Your task to perform on an android device: Empty the shopping cart on amazon. Add acer predator to the cart on amazon Image 0: 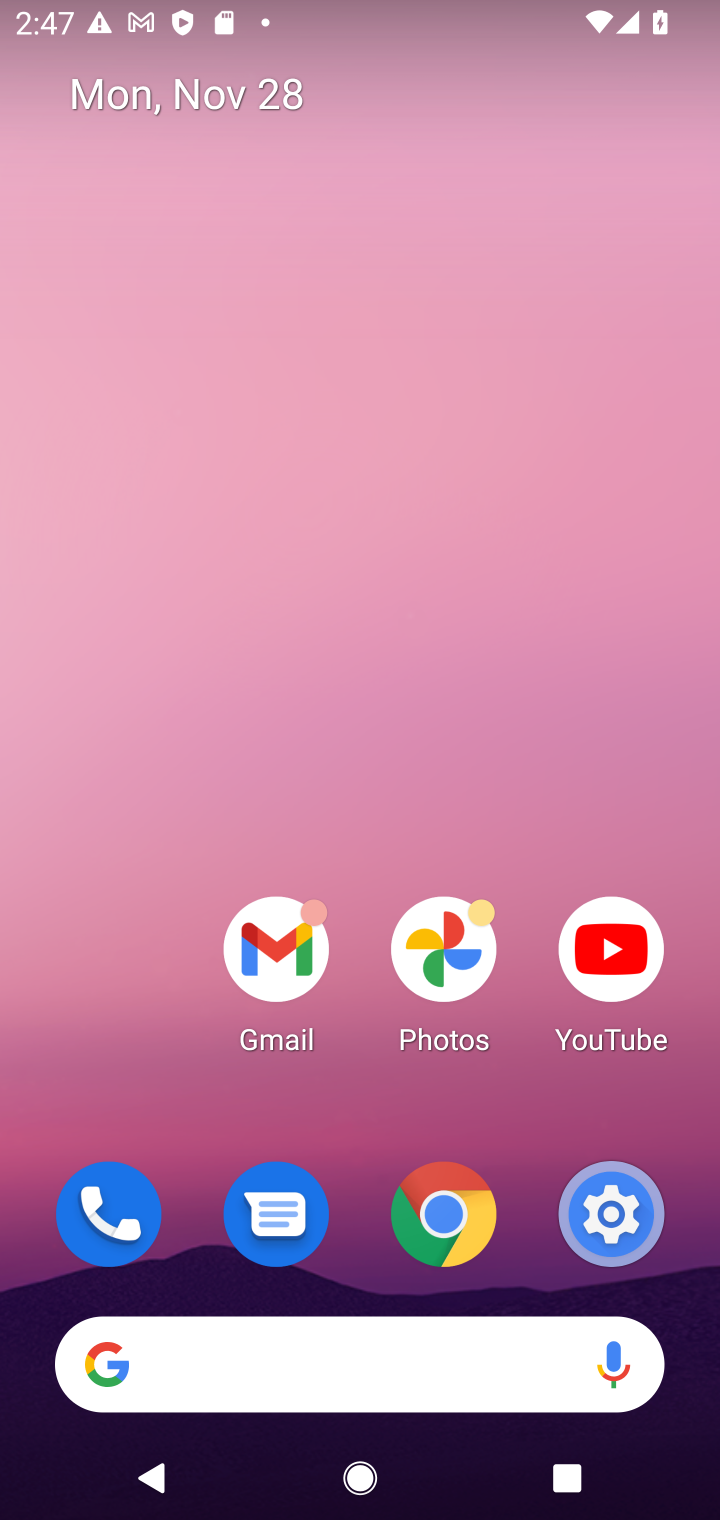
Step 0: click (373, 1334)
Your task to perform on an android device: Empty the shopping cart on amazon. Add acer predator to the cart on amazon Image 1: 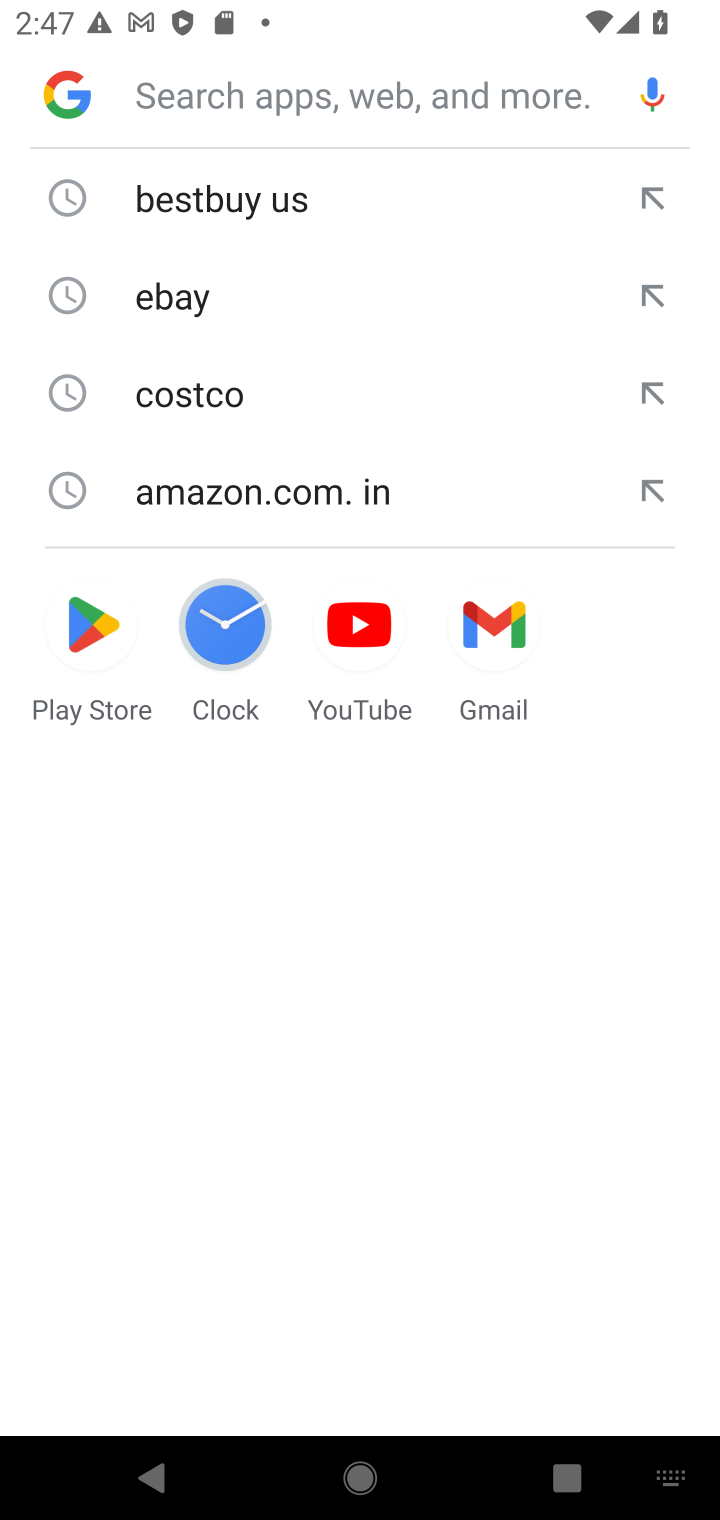
Step 1: type "amazon"
Your task to perform on an android device: Empty the shopping cart on amazon. Add acer predator to the cart on amazon Image 2: 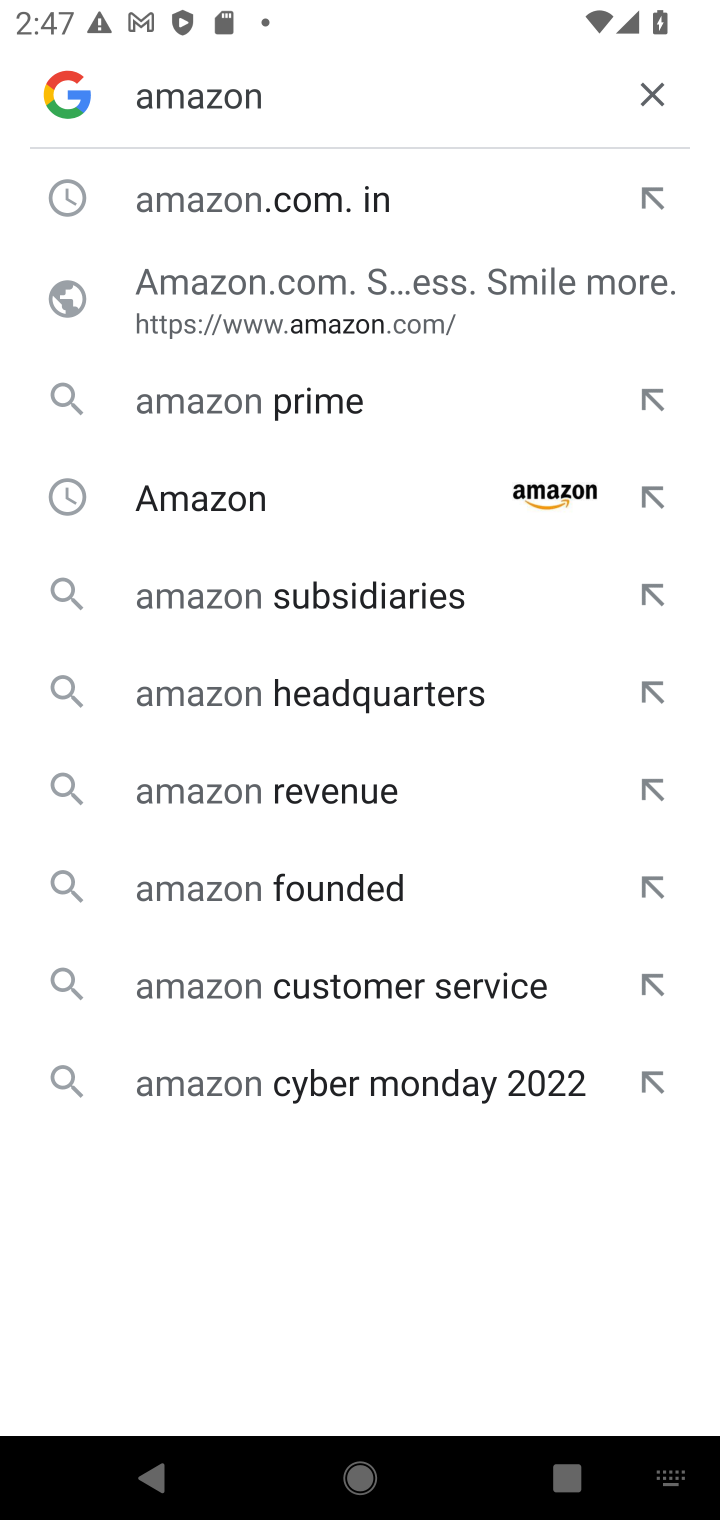
Step 2: click (224, 294)
Your task to perform on an android device: Empty the shopping cart on amazon. Add acer predator to the cart on amazon Image 3: 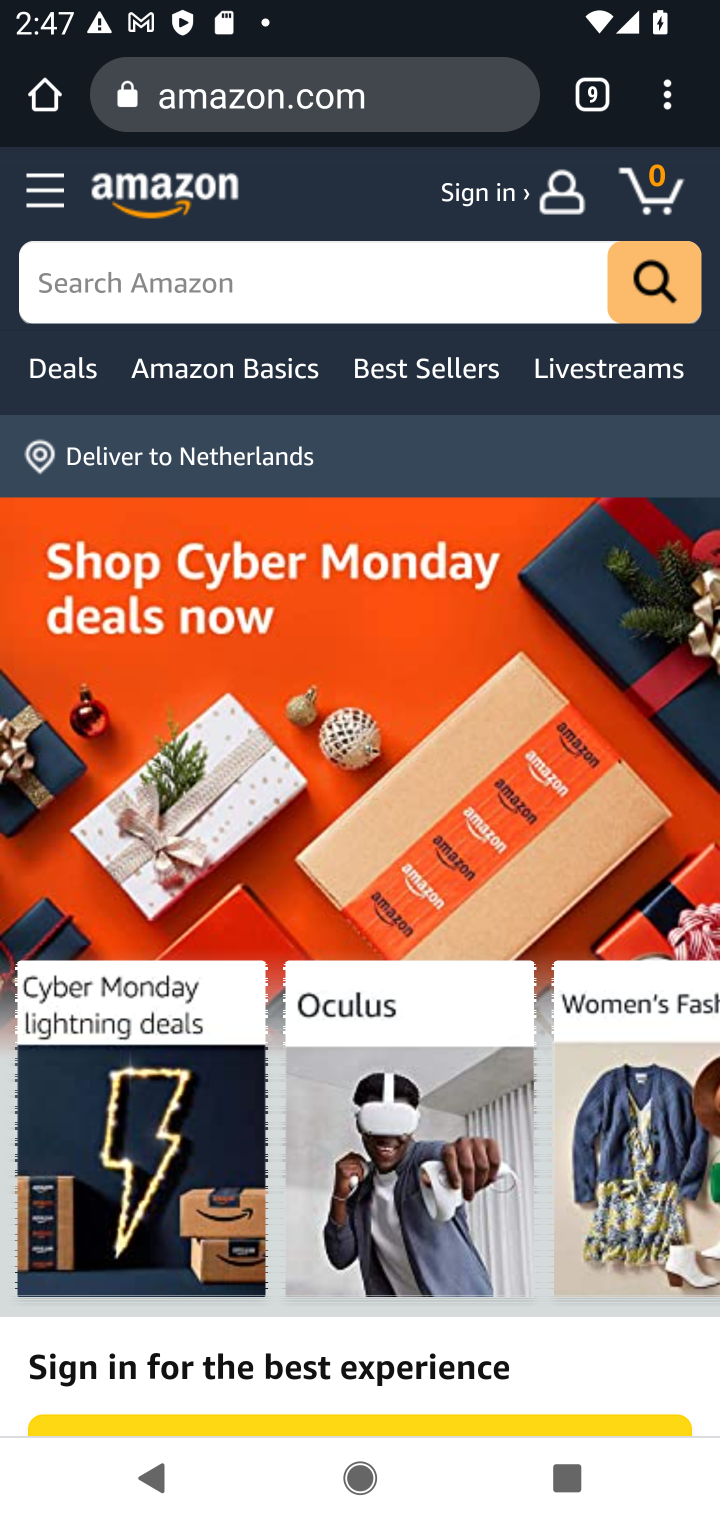
Step 3: click (398, 302)
Your task to perform on an android device: Empty the shopping cart on amazon. Add acer predator to the cart on amazon Image 4: 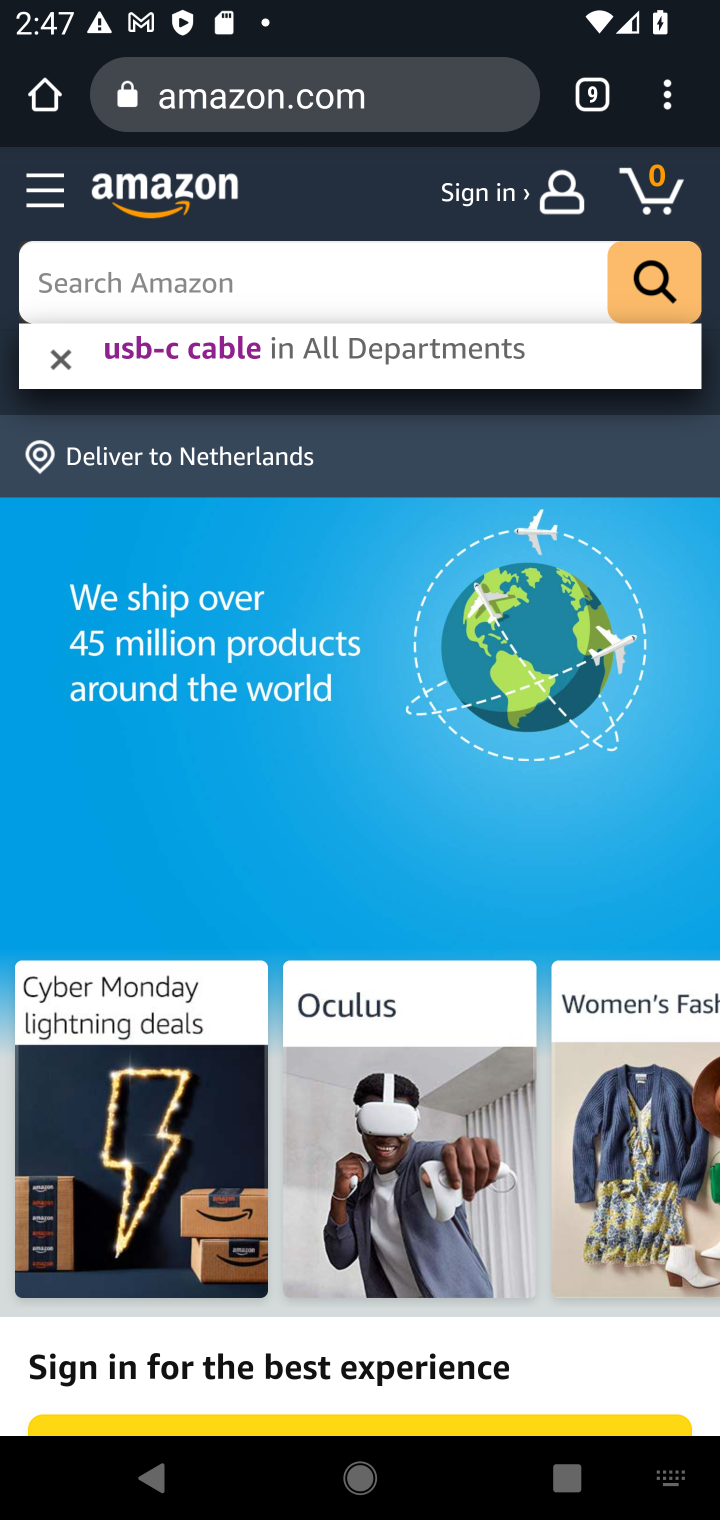
Step 4: type "acer predator"
Your task to perform on an android device: Empty the shopping cart on amazon. Add acer predator to the cart on amazon Image 5: 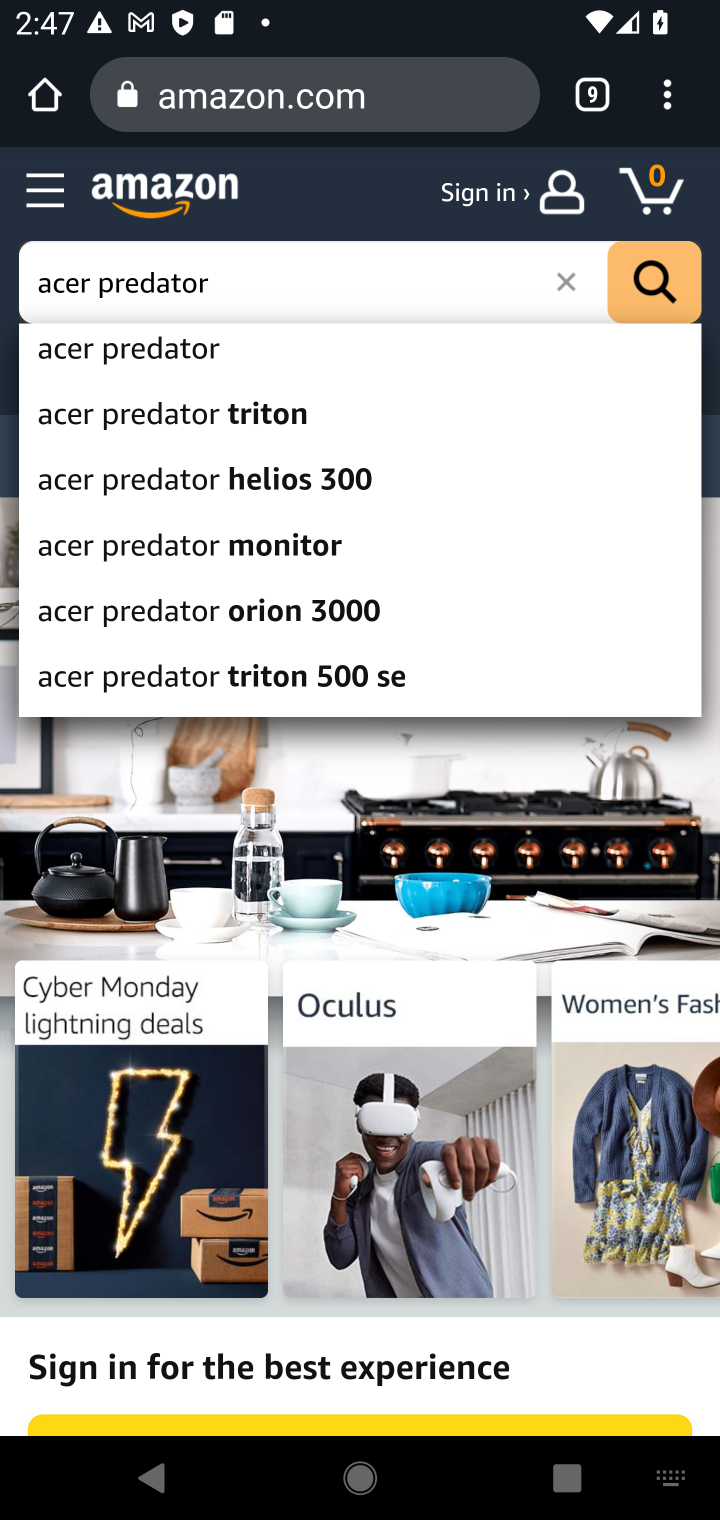
Step 5: click (288, 353)
Your task to perform on an android device: Empty the shopping cart on amazon. Add acer predator to the cart on amazon Image 6: 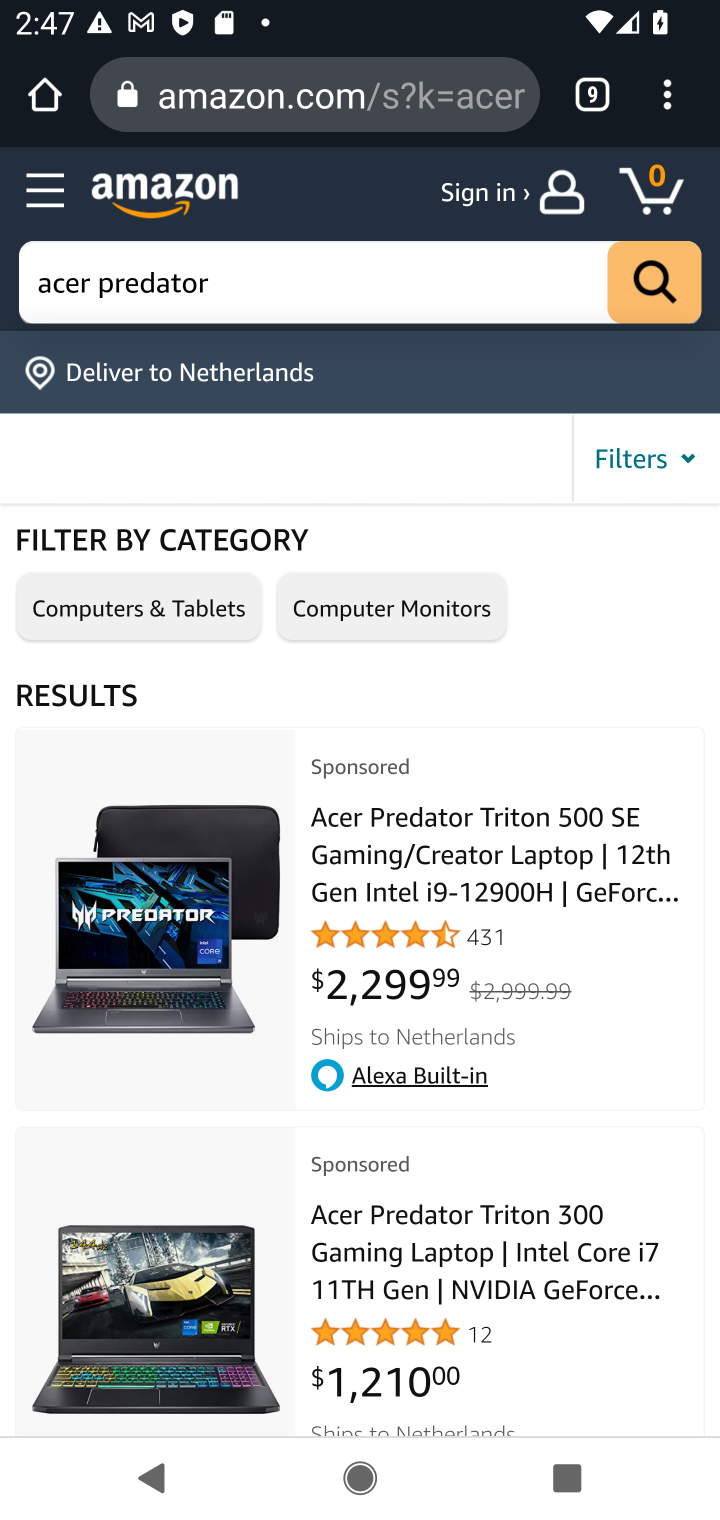
Step 6: click (318, 848)
Your task to perform on an android device: Empty the shopping cart on amazon. Add acer predator to the cart on amazon Image 7: 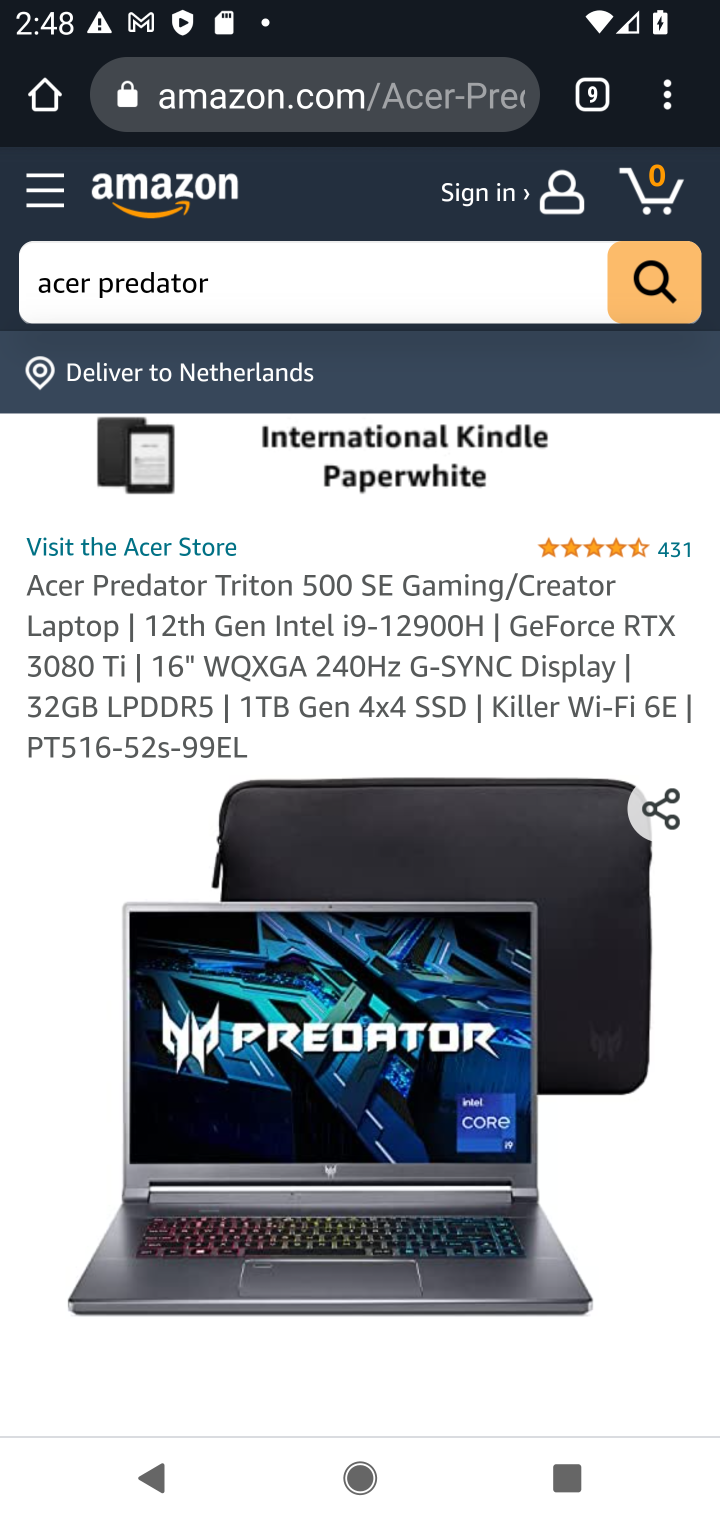
Step 7: task complete